Your task to perform on an android device: Open Wikipedia Image 0: 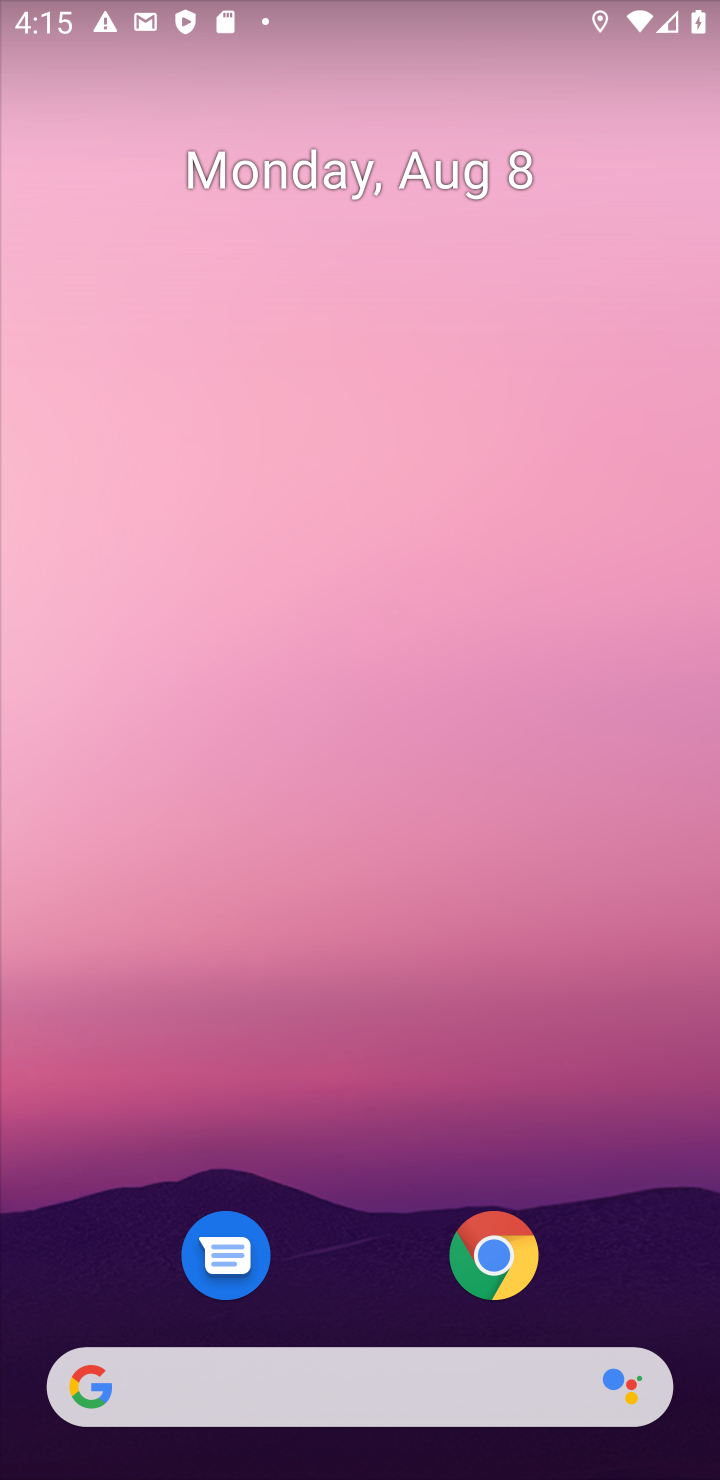
Step 0: click (497, 1260)
Your task to perform on an android device: Open Wikipedia Image 1: 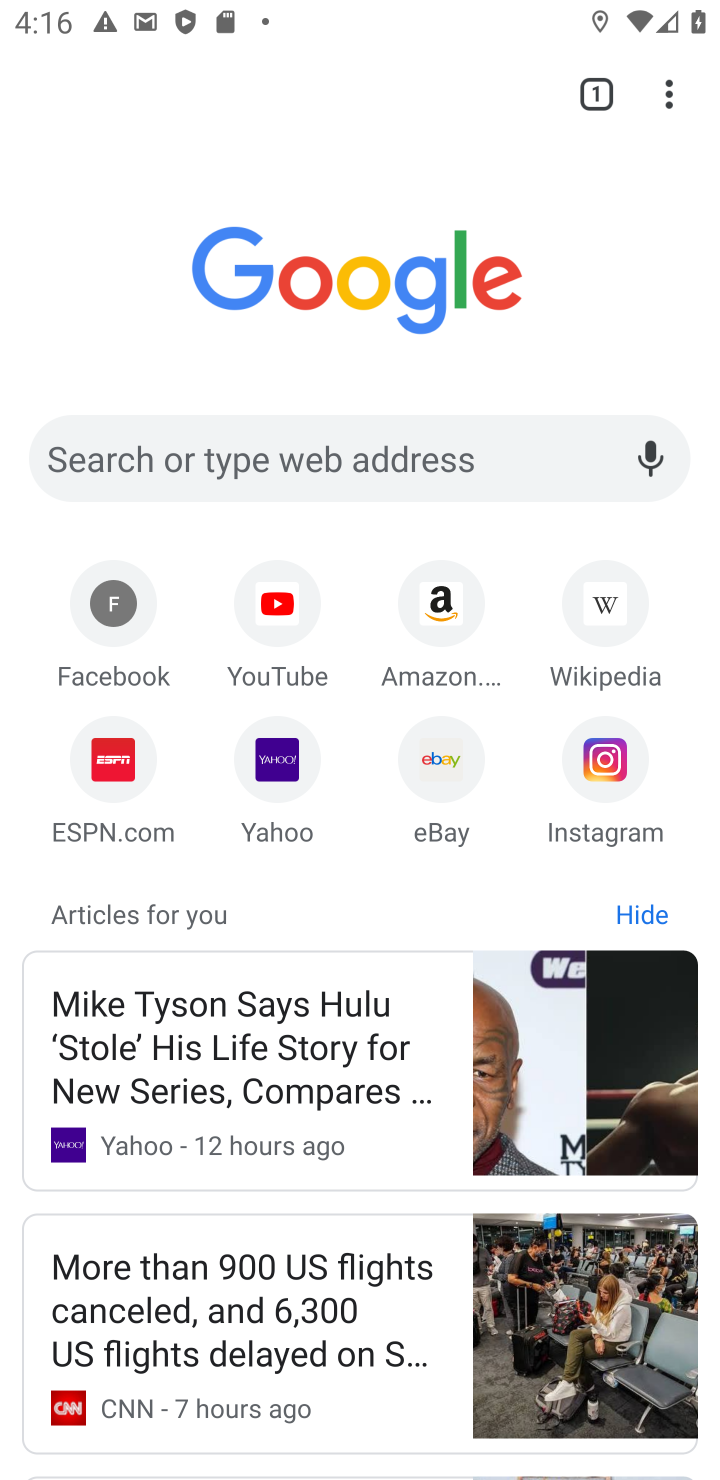
Step 1: click (604, 597)
Your task to perform on an android device: Open Wikipedia Image 2: 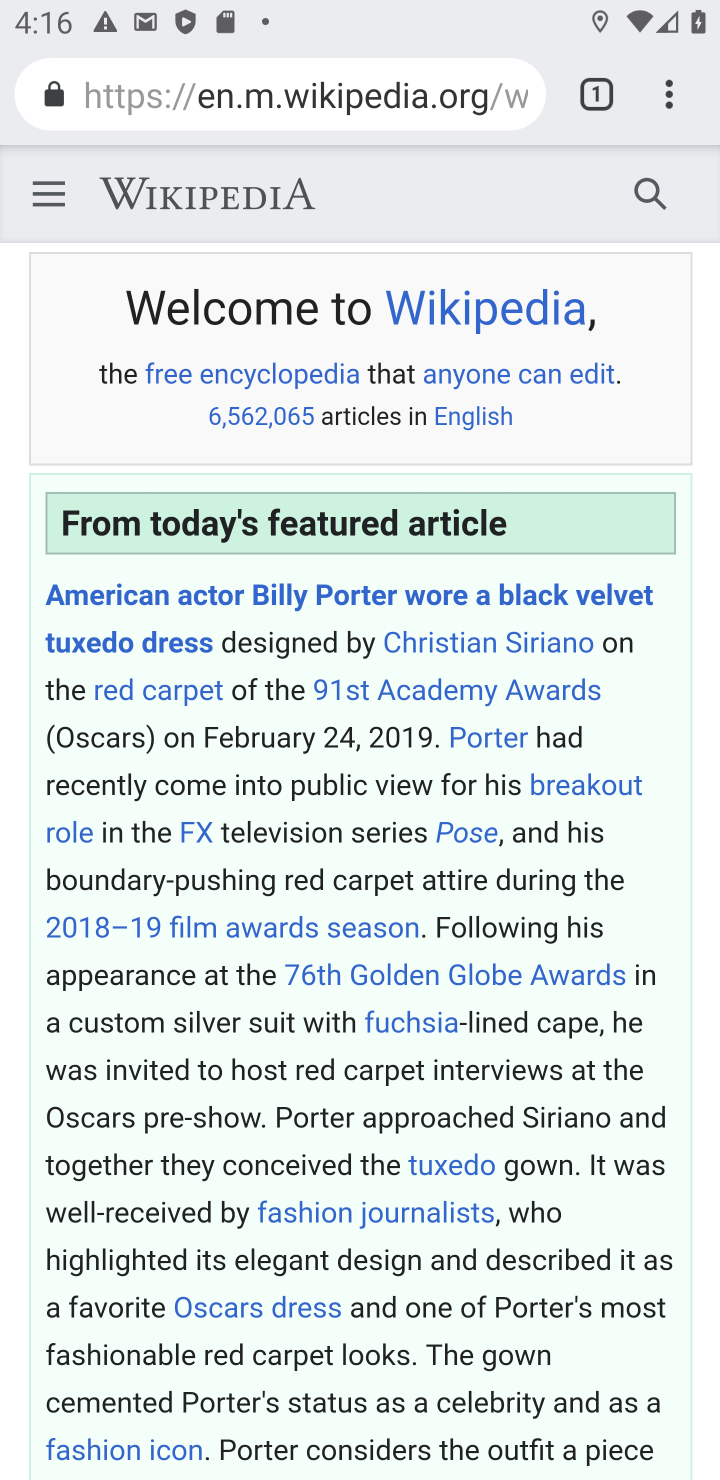
Step 2: task complete